Your task to perform on an android device: star an email in the gmail app Image 0: 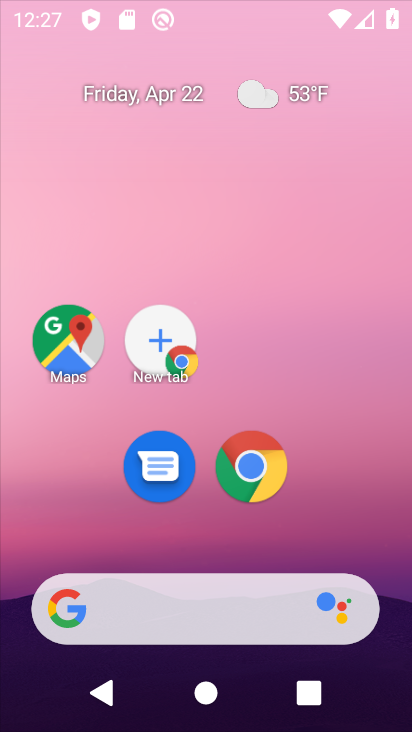
Step 0: drag from (348, 501) to (250, 32)
Your task to perform on an android device: star an email in the gmail app Image 1: 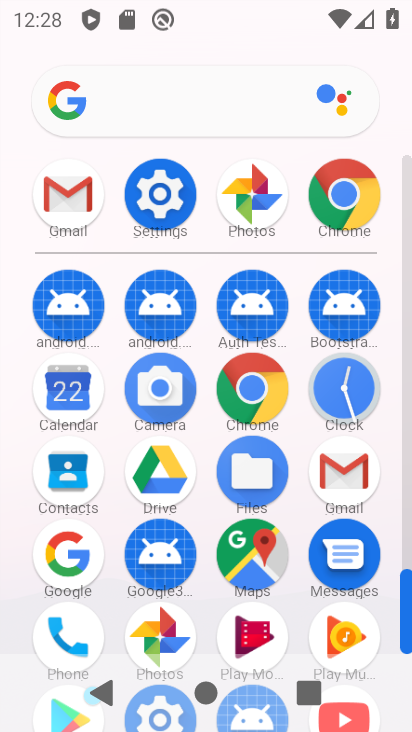
Step 1: click (343, 466)
Your task to perform on an android device: star an email in the gmail app Image 2: 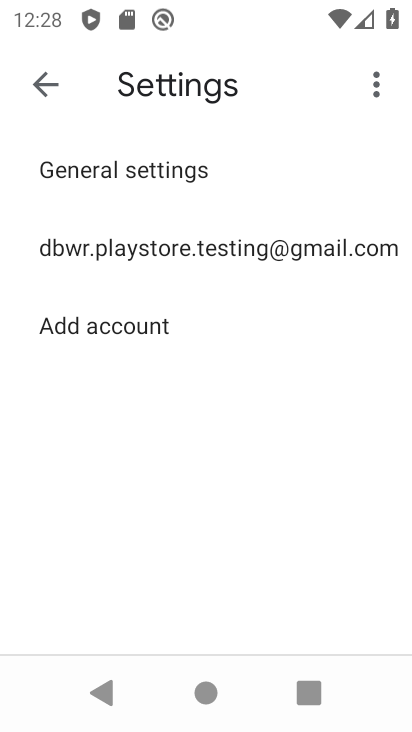
Step 2: click (47, 86)
Your task to perform on an android device: star an email in the gmail app Image 3: 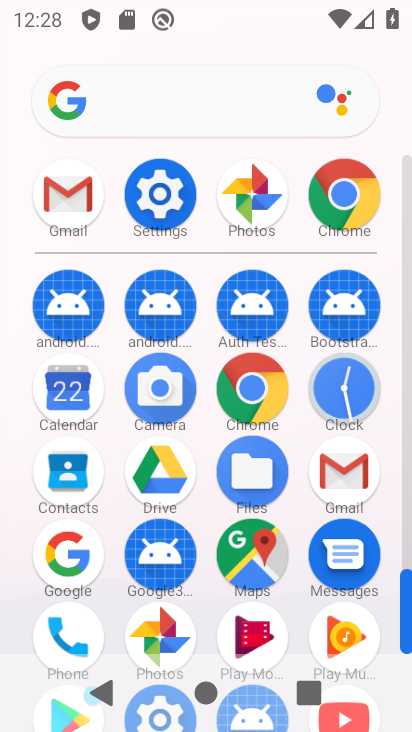
Step 3: click (65, 185)
Your task to perform on an android device: star an email in the gmail app Image 4: 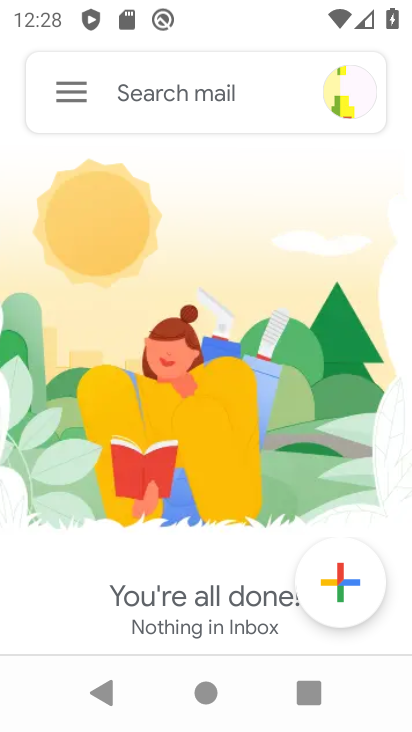
Step 4: click (71, 87)
Your task to perform on an android device: star an email in the gmail app Image 5: 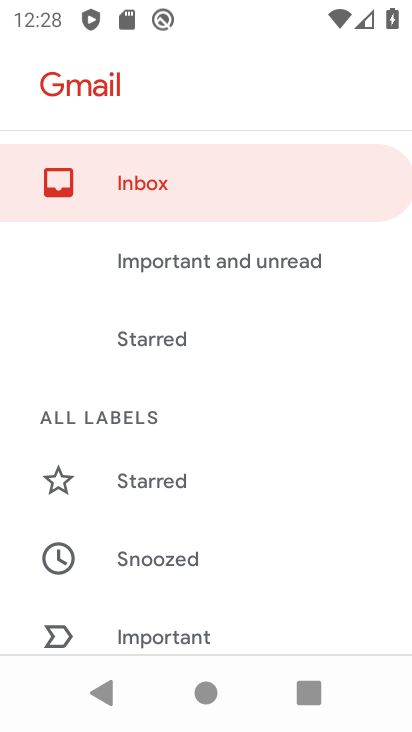
Step 5: drag from (267, 469) to (271, 124)
Your task to perform on an android device: star an email in the gmail app Image 6: 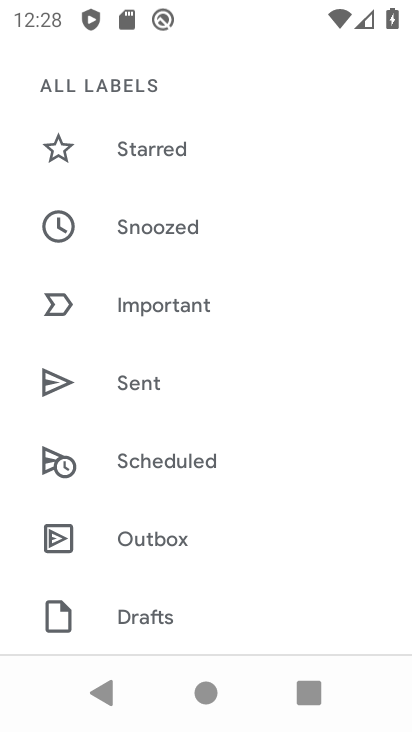
Step 6: drag from (253, 497) to (254, 108)
Your task to perform on an android device: star an email in the gmail app Image 7: 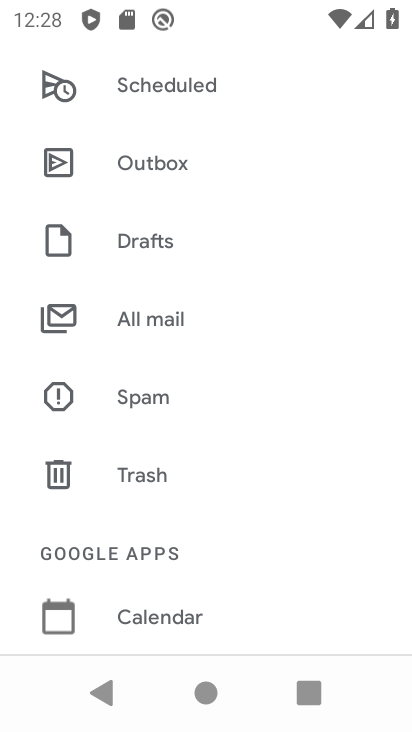
Step 7: click (188, 317)
Your task to perform on an android device: star an email in the gmail app Image 8: 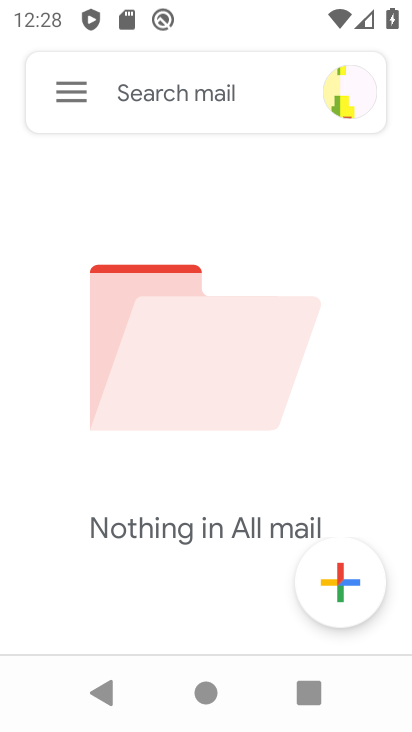
Step 8: task complete